Your task to perform on an android device: Go to Wikipedia Image 0: 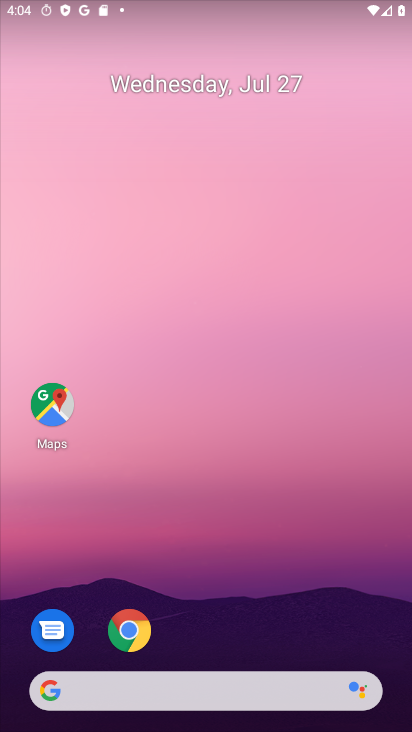
Step 0: click (135, 640)
Your task to perform on an android device: Go to Wikipedia Image 1: 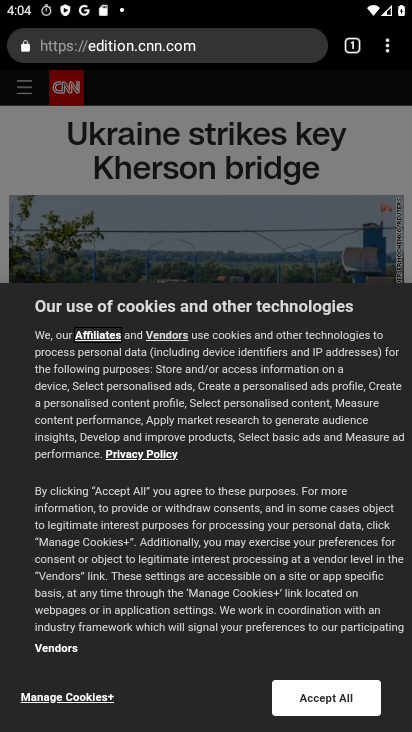
Step 1: click (191, 35)
Your task to perform on an android device: Go to Wikipedia Image 2: 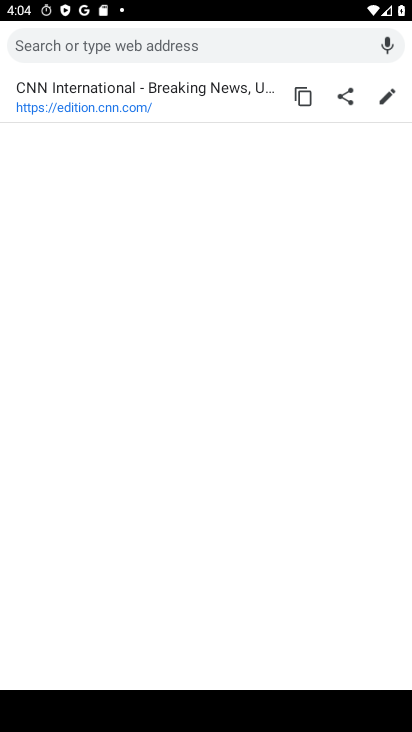
Step 2: type "wikipedia.com"
Your task to perform on an android device: Go to Wikipedia Image 3: 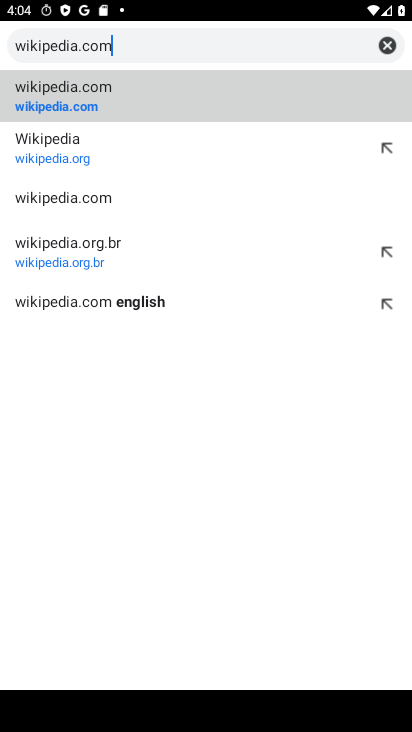
Step 3: click (120, 101)
Your task to perform on an android device: Go to Wikipedia Image 4: 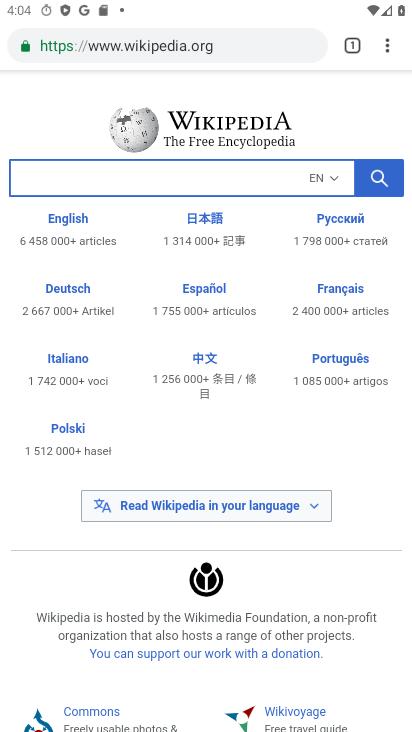
Step 4: task complete